Your task to perform on an android device: delete location history Image 0: 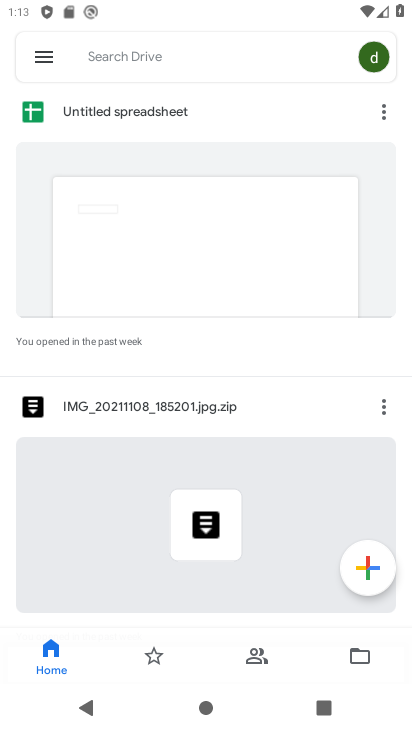
Step 0: press home button
Your task to perform on an android device: delete location history Image 1: 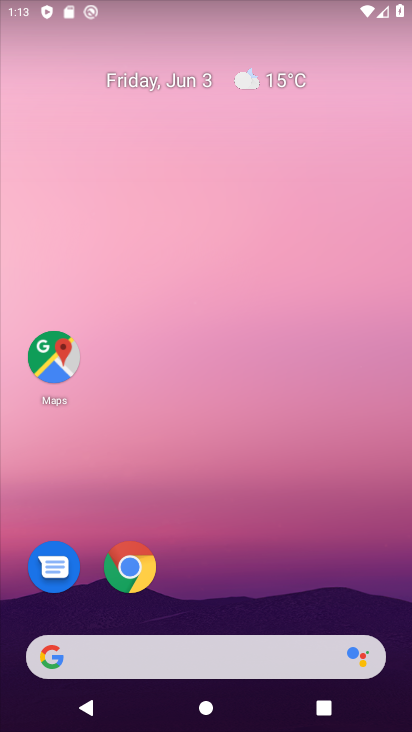
Step 1: drag from (192, 602) to (90, 15)
Your task to perform on an android device: delete location history Image 2: 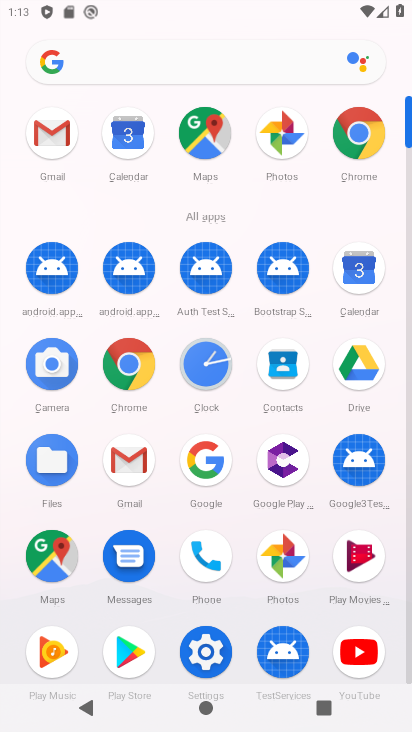
Step 2: click (45, 561)
Your task to perform on an android device: delete location history Image 3: 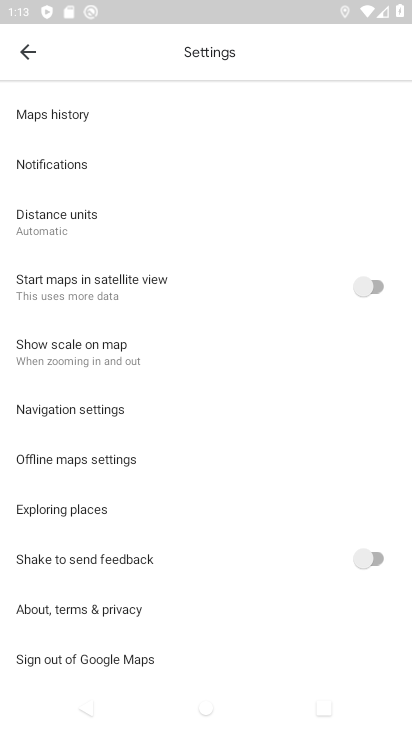
Step 3: click (15, 56)
Your task to perform on an android device: delete location history Image 4: 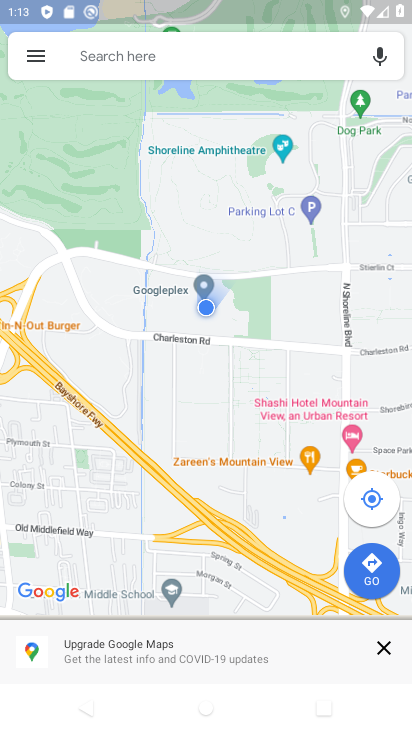
Step 4: click (36, 56)
Your task to perform on an android device: delete location history Image 5: 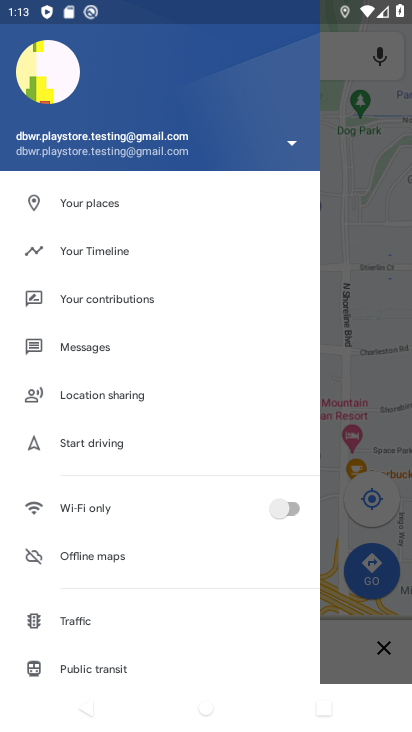
Step 5: click (114, 244)
Your task to perform on an android device: delete location history Image 6: 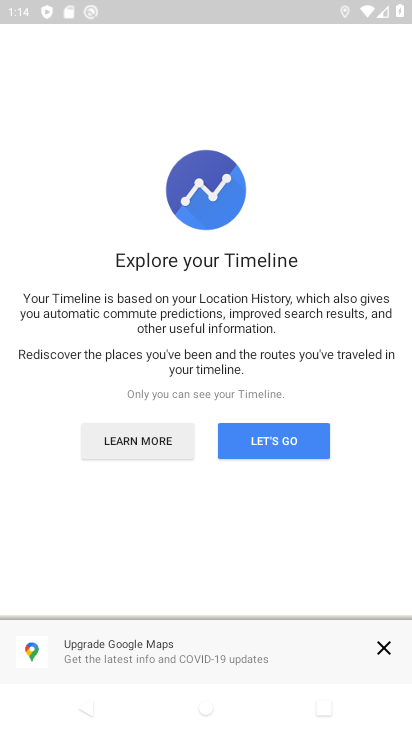
Step 6: click (283, 444)
Your task to perform on an android device: delete location history Image 7: 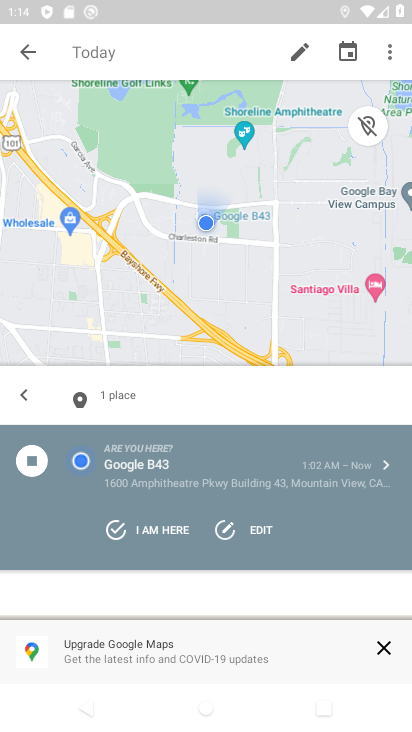
Step 7: click (390, 47)
Your task to perform on an android device: delete location history Image 8: 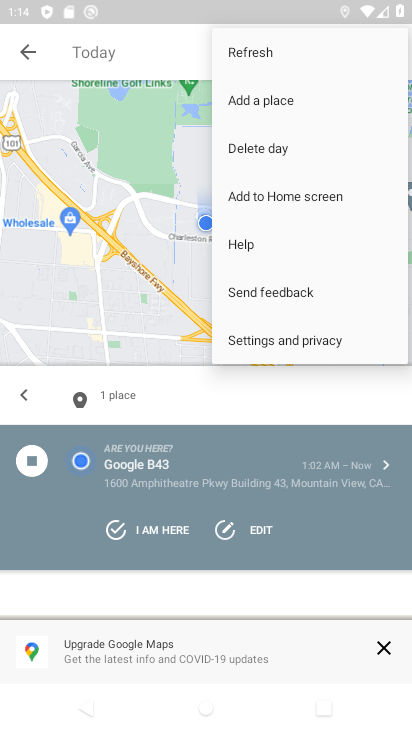
Step 8: click (321, 336)
Your task to perform on an android device: delete location history Image 9: 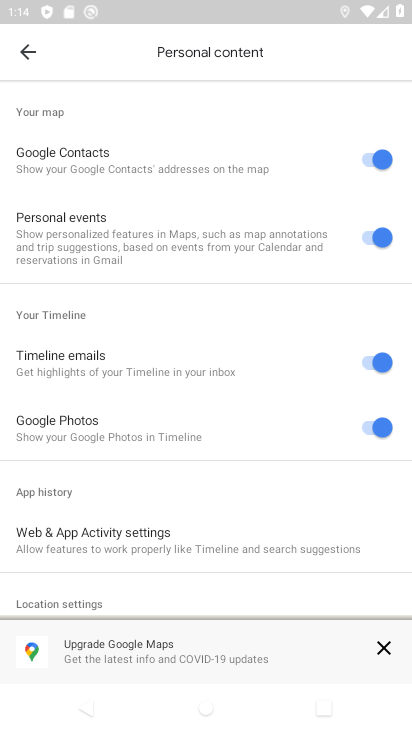
Step 9: drag from (157, 549) to (208, 212)
Your task to perform on an android device: delete location history Image 10: 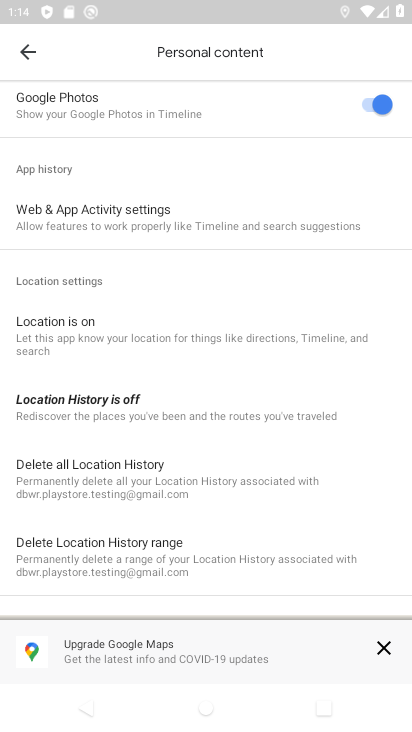
Step 10: click (108, 407)
Your task to perform on an android device: delete location history Image 11: 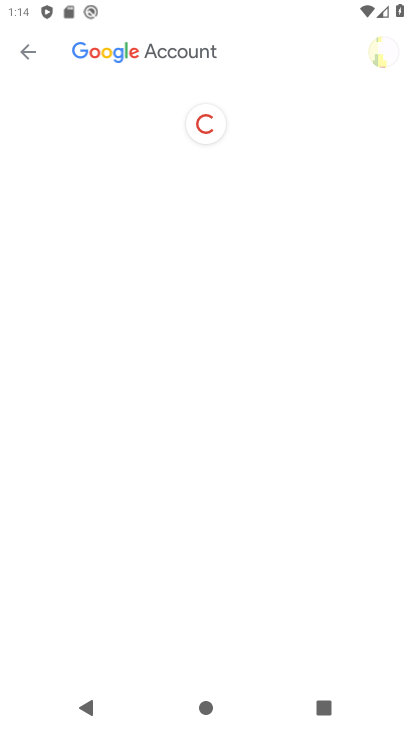
Step 11: click (28, 53)
Your task to perform on an android device: delete location history Image 12: 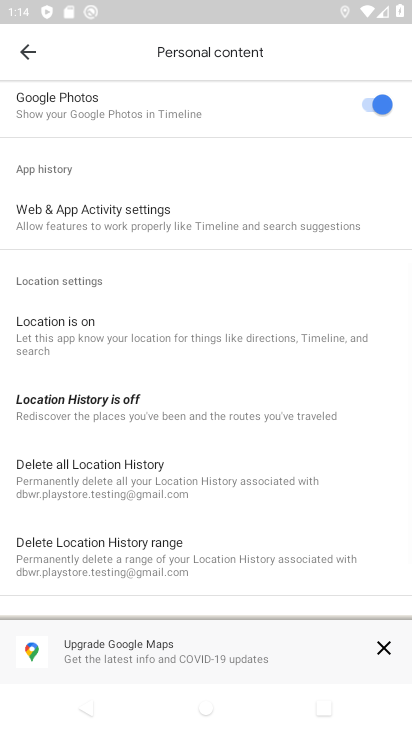
Step 12: click (107, 463)
Your task to perform on an android device: delete location history Image 13: 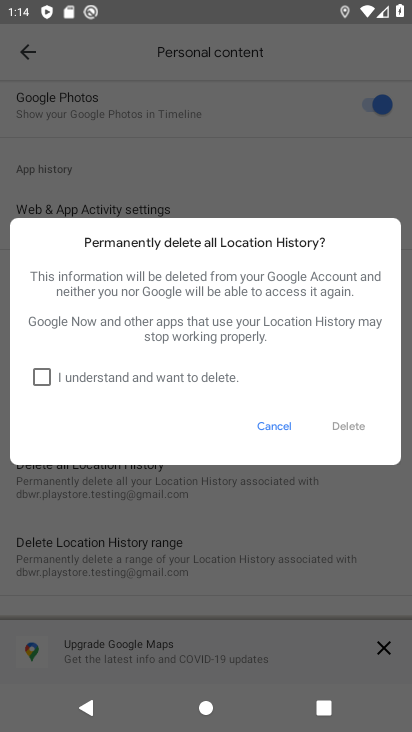
Step 13: click (38, 377)
Your task to perform on an android device: delete location history Image 14: 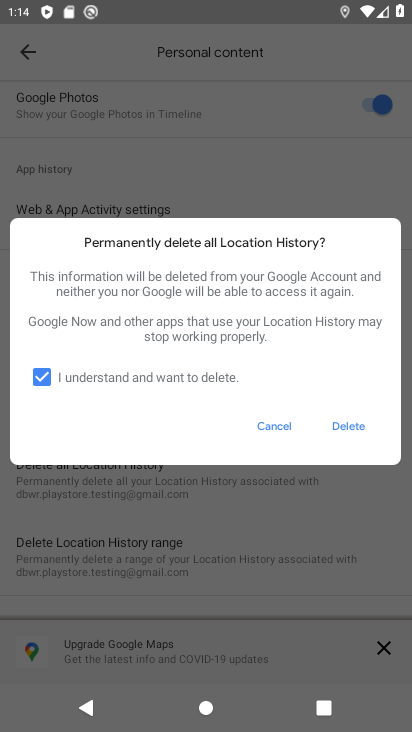
Step 14: click (355, 413)
Your task to perform on an android device: delete location history Image 15: 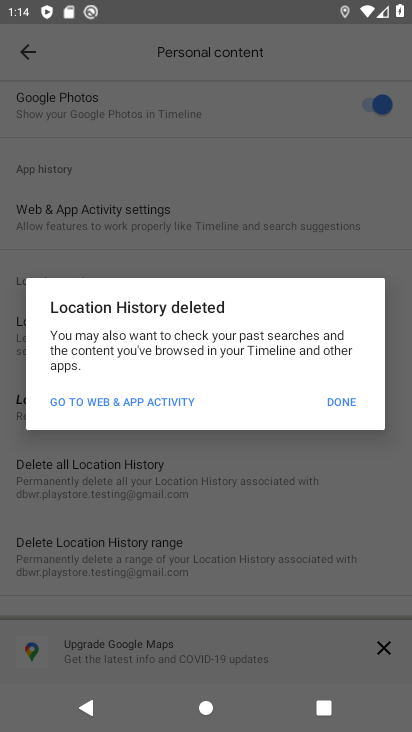
Step 15: click (350, 394)
Your task to perform on an android device: delete location history Image 16: 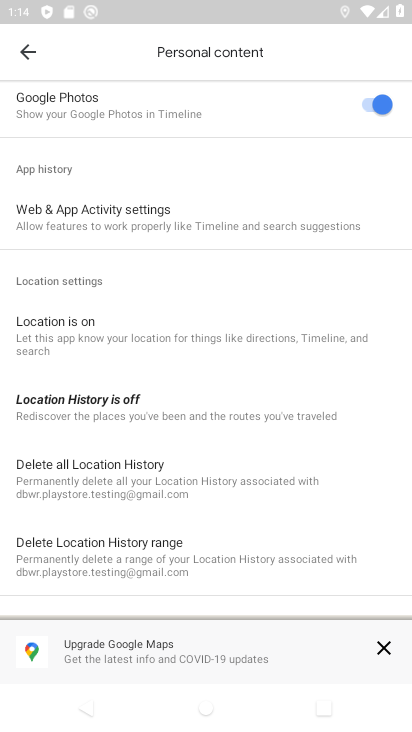
Step 16: task complete